Your task to perform on an android device: turn off airplane mode Image 0: 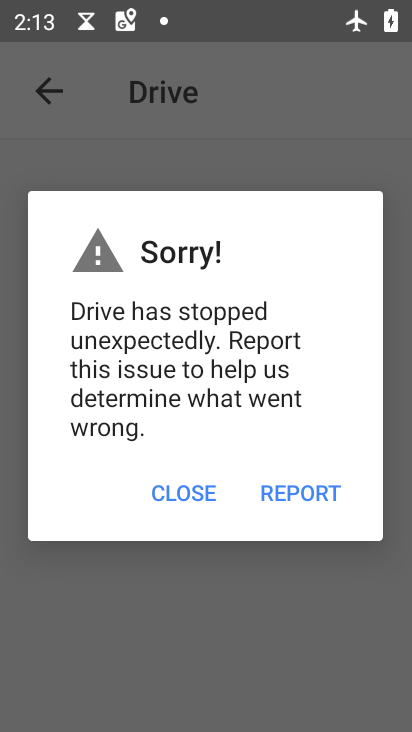
Step 0: press home button
Your task to perform on an android device: turn off airplane mode Image 1: 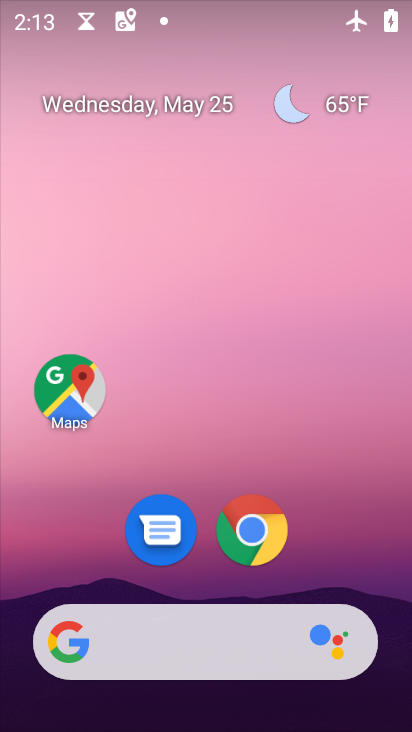
Step 1: drag from (312, 538) to (288, 212)
Your task to perform on an android device: turn off airplane mode Image 2: 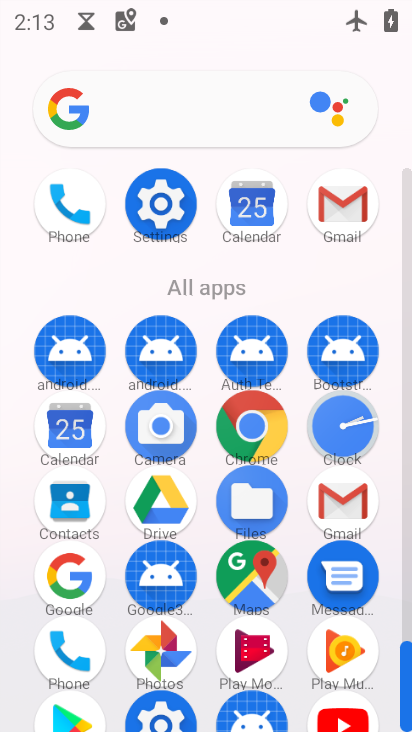
Step 2: click (171, 195)
Your task to perform on an android device: turn off airplane mode Image 3: 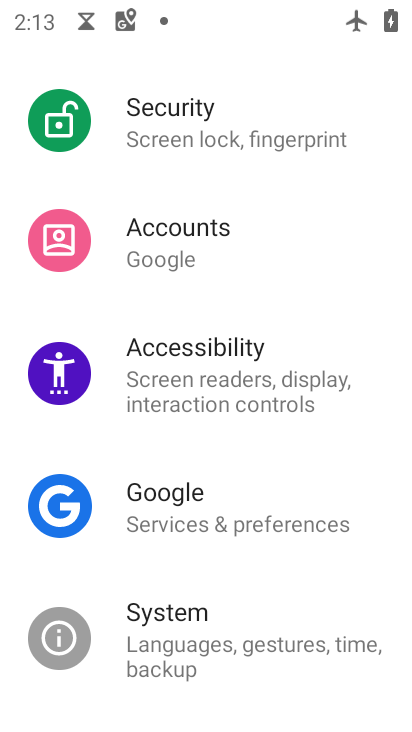
Step 3: drag from (300, 147) to (300, 624)
Your task to perform on an android device: turn off airplane mode Image 4: 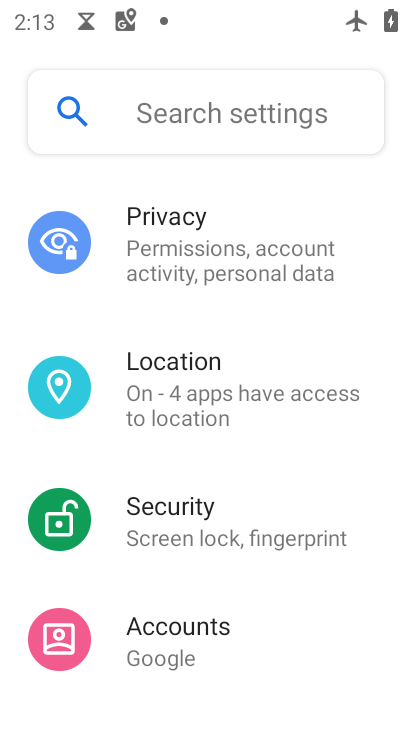
Step 4: drag from (195, 283) to (227, 622)
Your task to perform on an android device: turn off airplane mode Image 5: 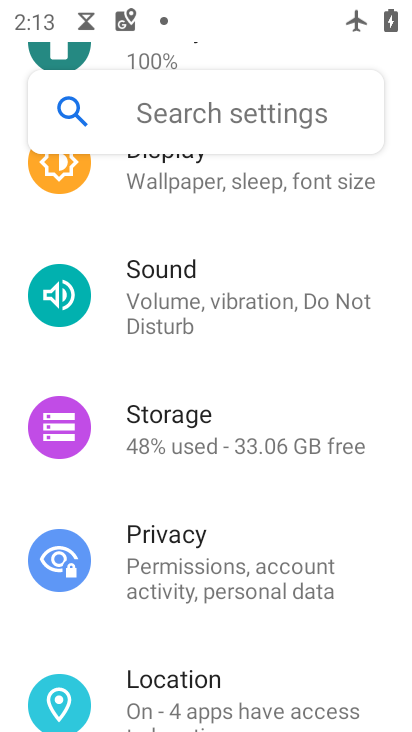
Step 5: drag from (205, 205) to (221, 654)
Your task to perform on an android device: turn off airplane mode Image 6: 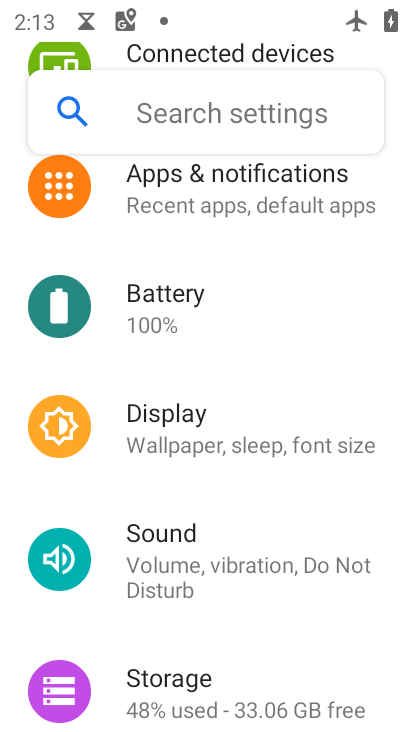
Step 6: drag from (178, 331) to (187, 642)
Your task to perform on an android device: turn off airplane mode Image 7: 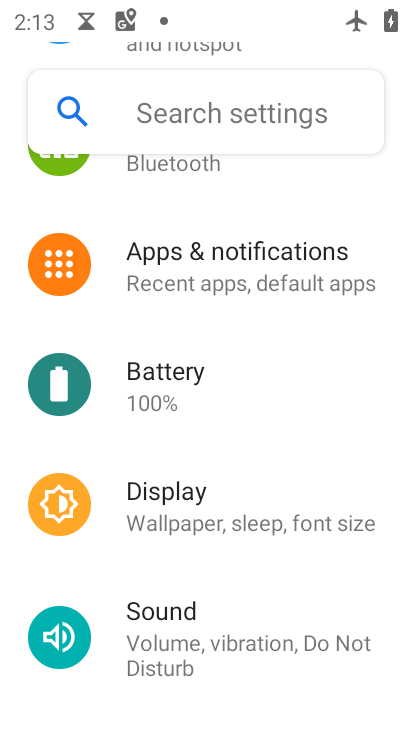
Step 7: drag from (156, 311) to (158, 595)
Your task to perform on an android device: turn off airplane mode Image 8: 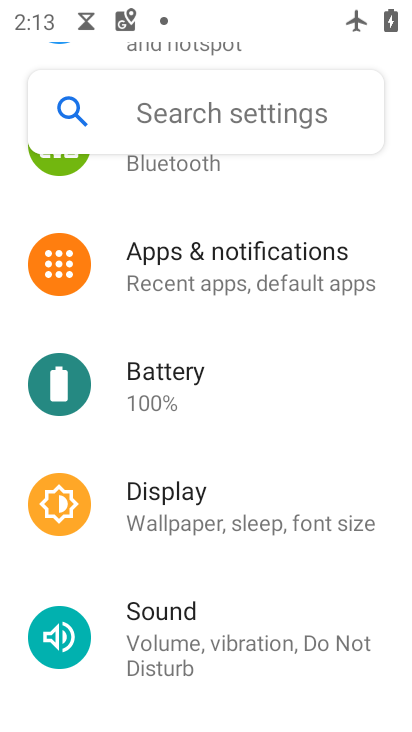
Step 8: drag from (133, 304) to (140, 645)
Your task to perform on an android device: turn off airplane mode Image 9: 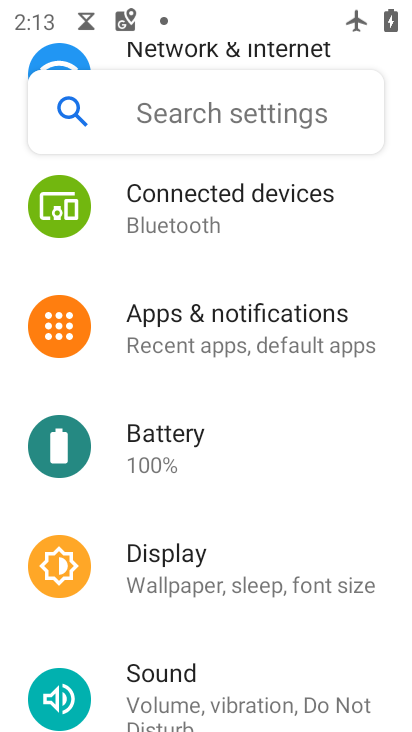
Step 9: click (155, 470)
Your task to perform on an android device: turn off airplane mode Image 10: 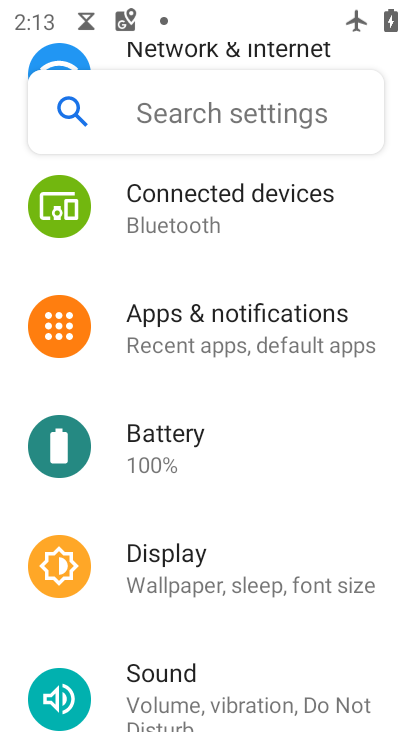
Step 10: drag from (197, 220) to (223, 416)
Your task to perform on an android device: turn off airplane mode Image 11: 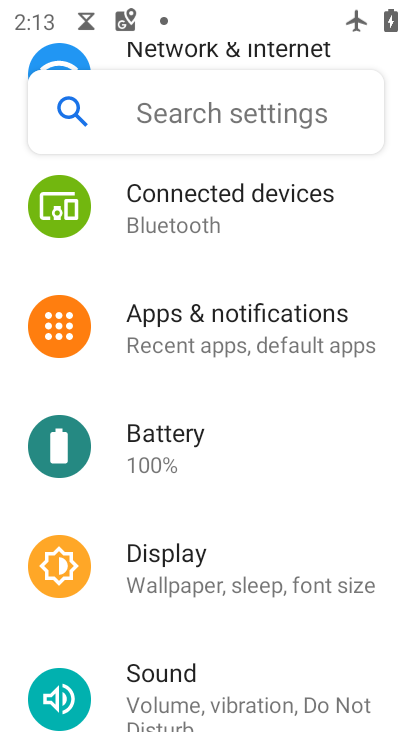
Step 11: drag from (229, 230) to (225, 433)
Your task to perform on an android device: turn off airplane mode Image 12: 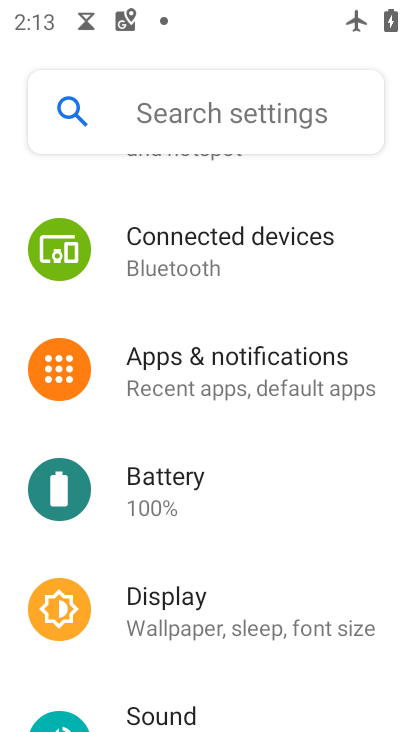
Step 12: drag from (197, 436) to (207, 611)
Your task to perform on an android device: turn off airplane mode Image 13: 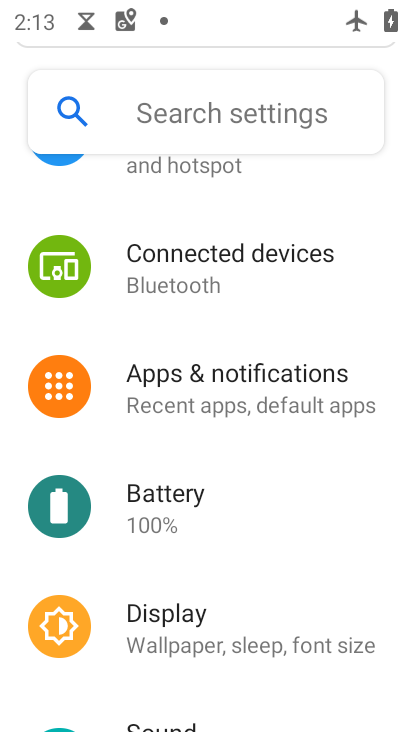
Step 13: click (165, 500)
Your task to perform on an android device: turn off airplane mode Image 14: 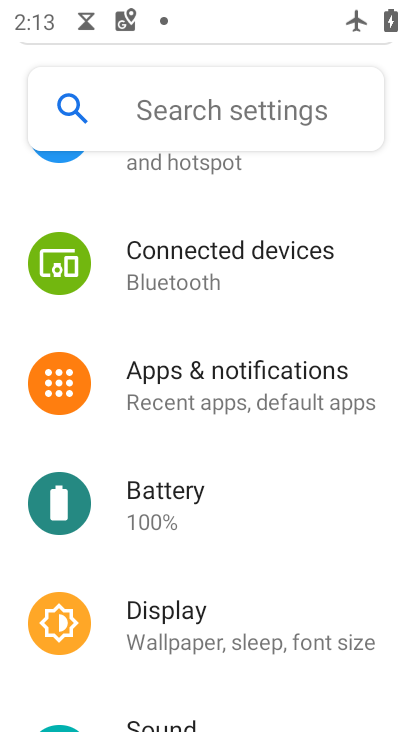
Step 14: drag from (205, 350) to (222, 460)
Your task to perform on an android device: turn off airplane mode Image 15: 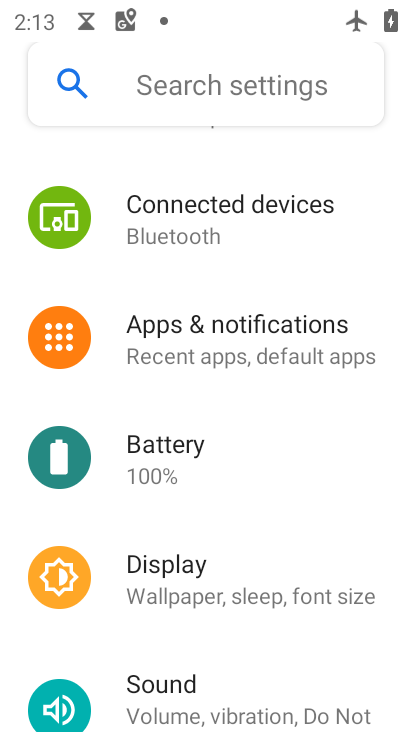
Step 15: drag from (242, 395) to (249, 442)
Your task to perform on an android device: turn off airplane mode Image 16: 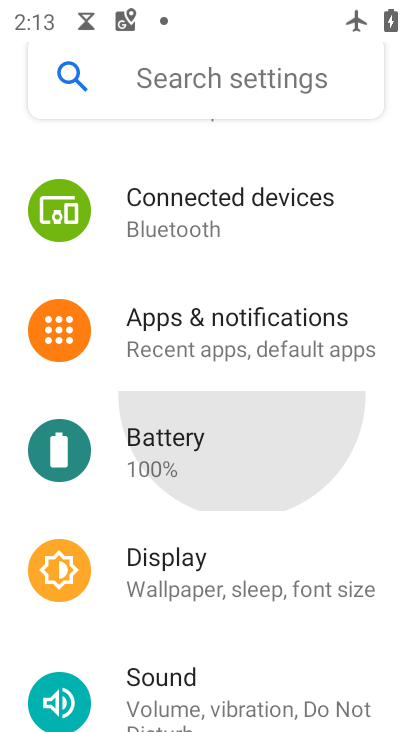
Step 16: drag from (204, 245) to (216, 533)
Your task to perform on an android device: turn off airplane mode Image 17: 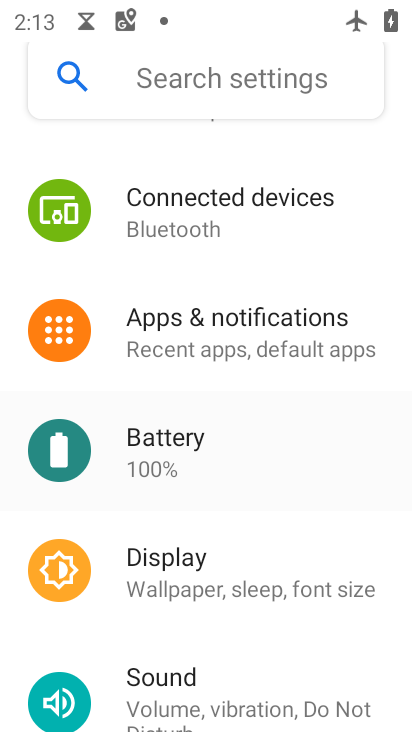
Step 17: drag from (191, 324) to (193, 500)
Your task to perform on an android device: turn off airplane mode Image 18: 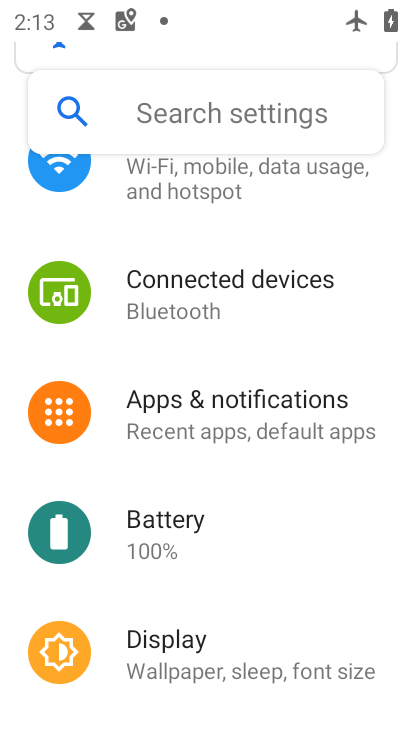
Step 18: drag from (160, 354) to (219, 475)
Your task to perform on an android device: turn off airplane mode Image 19: 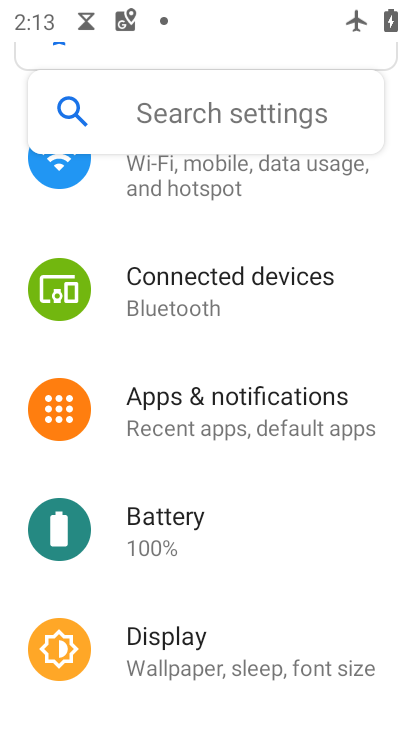
Step 19: drag from (147, 184) to (172, 316)
Your task to perform on an android device: turn off airplane mode Image 20: 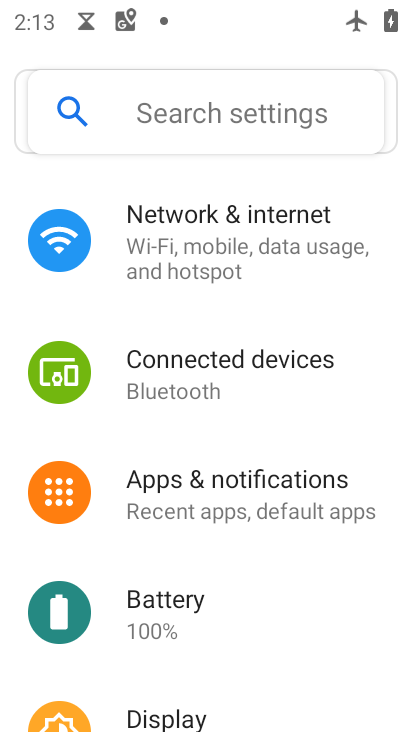
Step 20: drag from (181, 292) to (184, 506)
Your task to perform on an android device: turn off airplane mode Image 21: 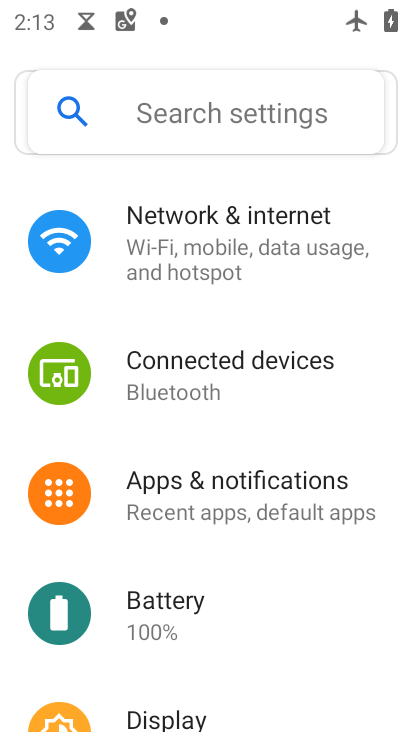
Step 21: drag from (135, 434) to (142, 584)
Your task to perform on an android device: turn off airplane mode Image 22: 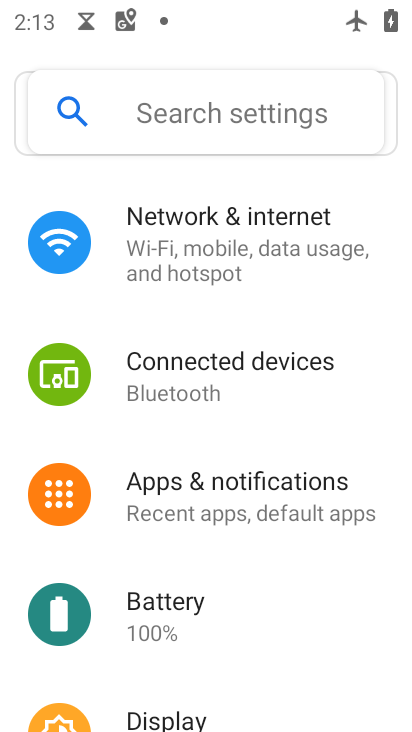
Step 22: click (169, 267)
Your task to perform on an android device: turn off airplane mode Image 23: 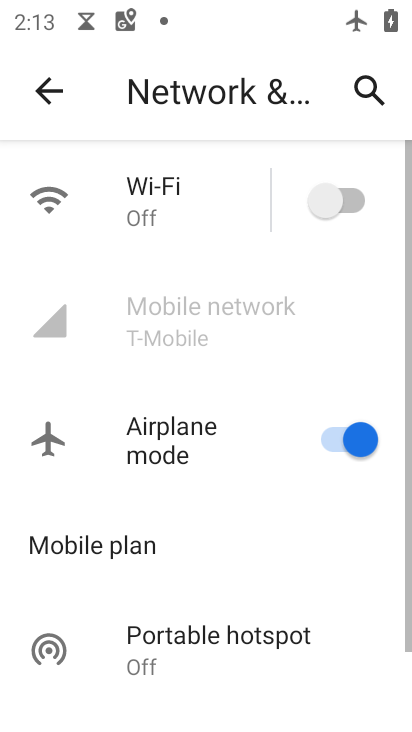
Step 23: click (326, 440)
Your task to perform on an android device: turn off airplane mode Image 24: 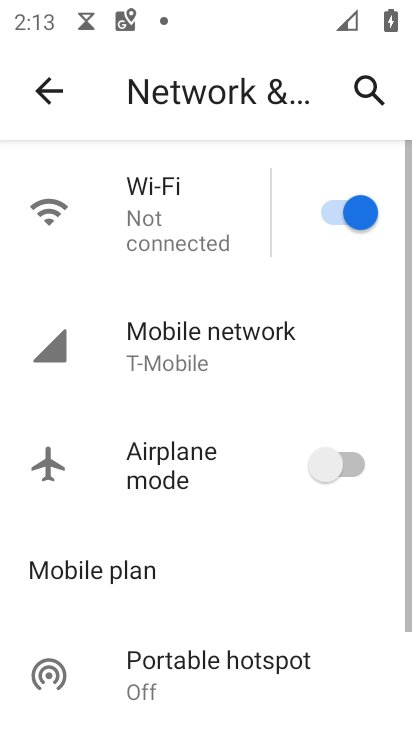
Step 24: task complete